Your task to perform on an android device: uninstall "Google News" Image 0: 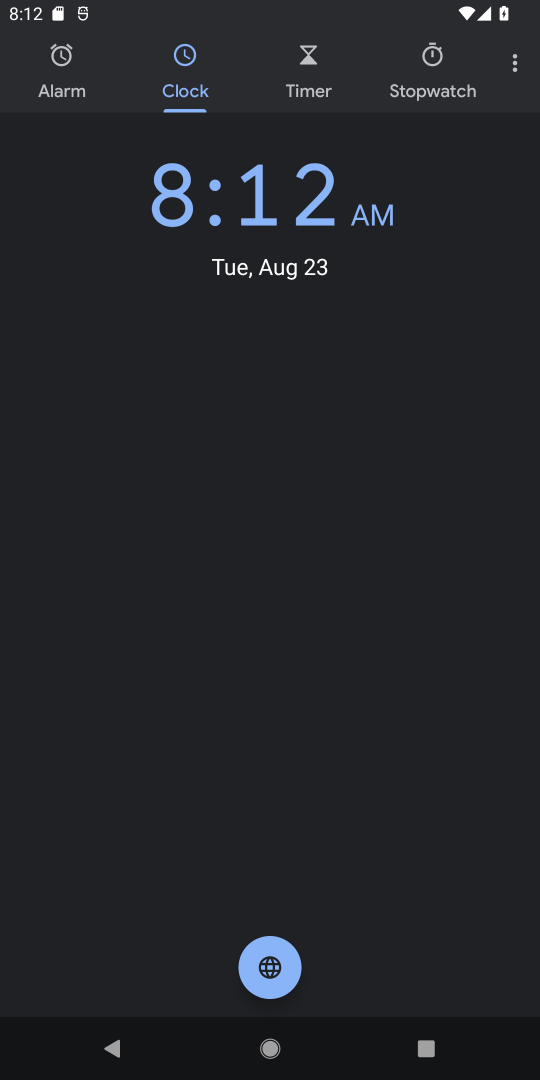
Step 0: press home button
Your task to perform on an android device: uninstall "Google News" Image 1: 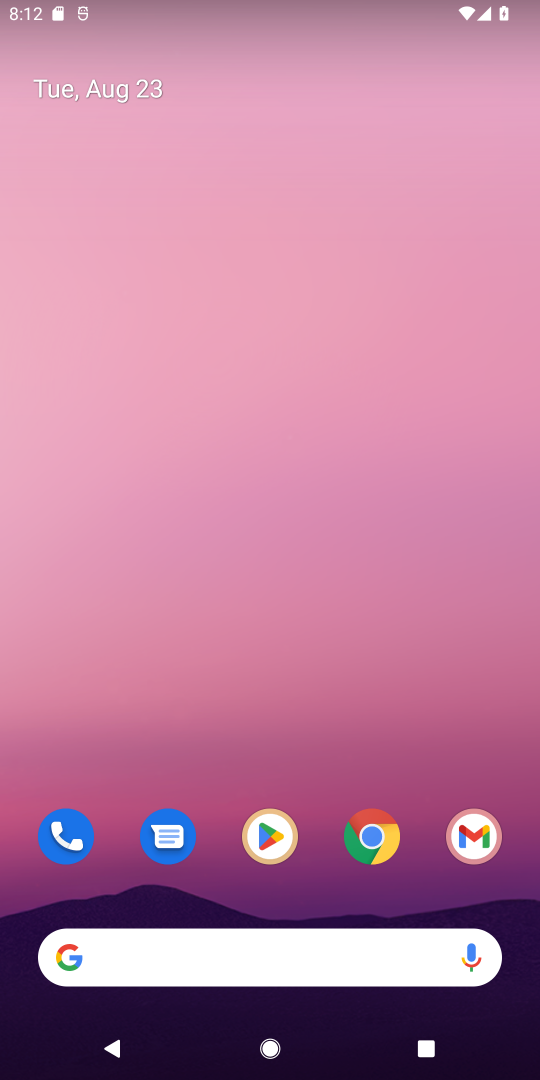
Step 1: click (273, 846)
Your task to perform on an android device: uninstall "Google News" Image 2: 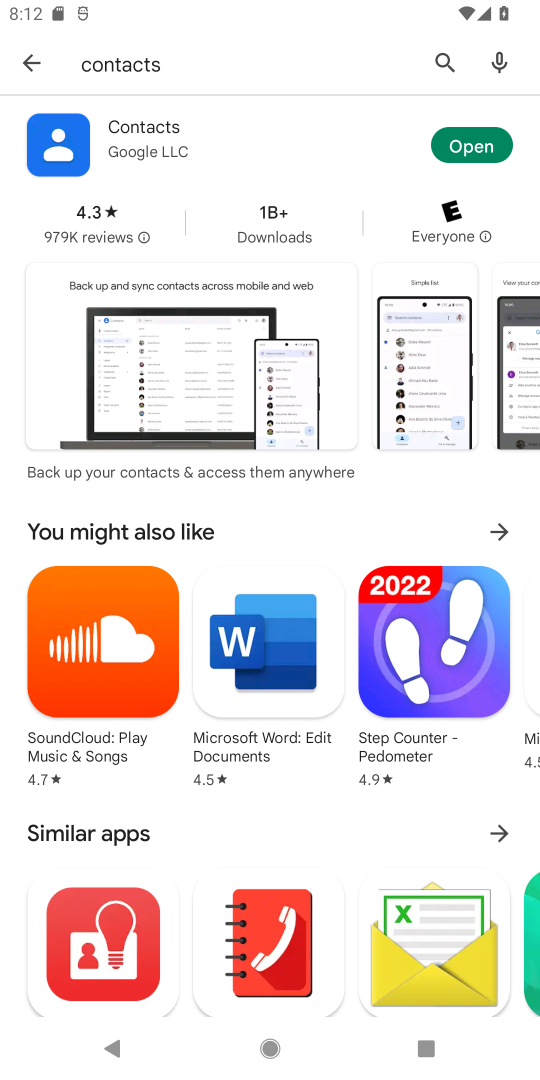
Step 2: click (442, 60)
Your task to perform on an android device: uninstall "Google News" Image 3: 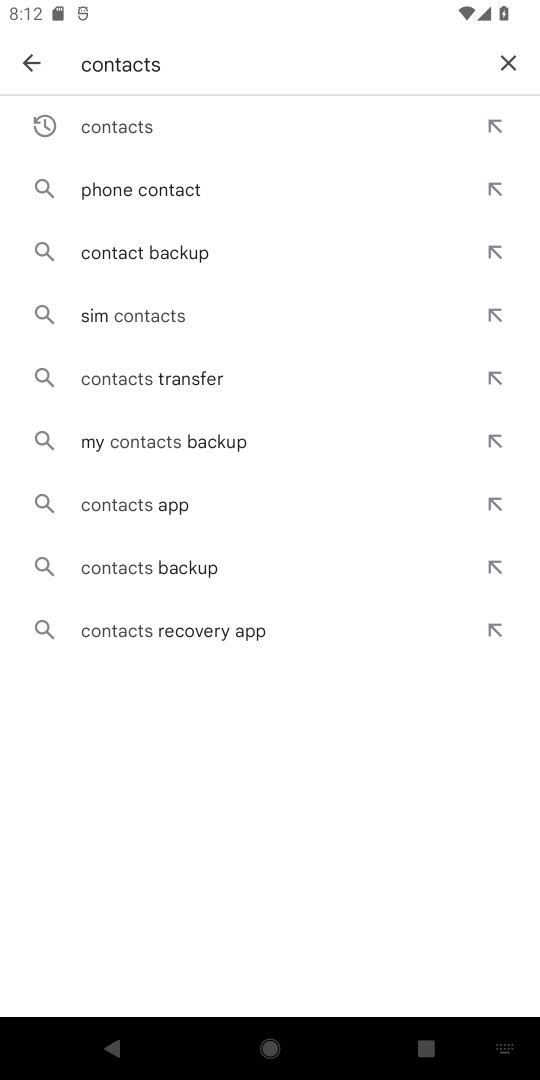
Step 3: click (509, 52)
Your task to perform on an android device: uninstall "Google News" Image 4: 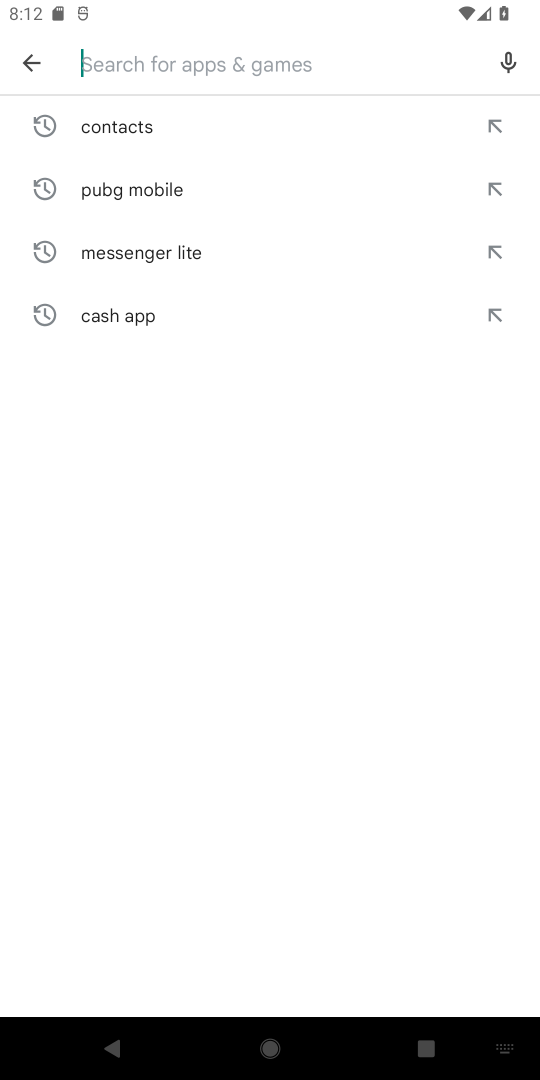
Step 4: type "Google News"
Your task to perform on an android device: uninstall "Google News" Image 5: 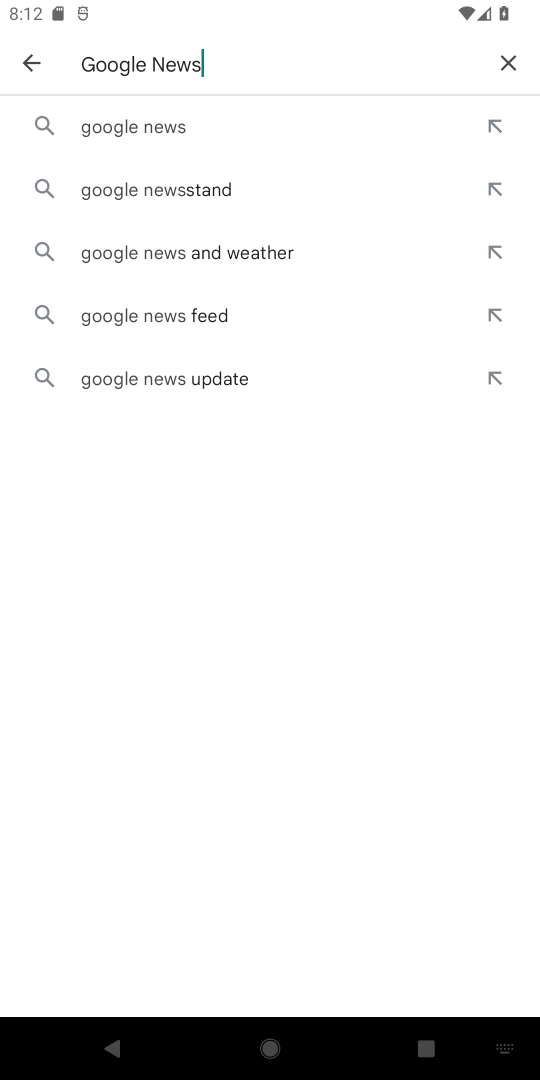
Step 5: click (127, 127)
Your task to perform on an android device: uninstall "Google News" Image 6: 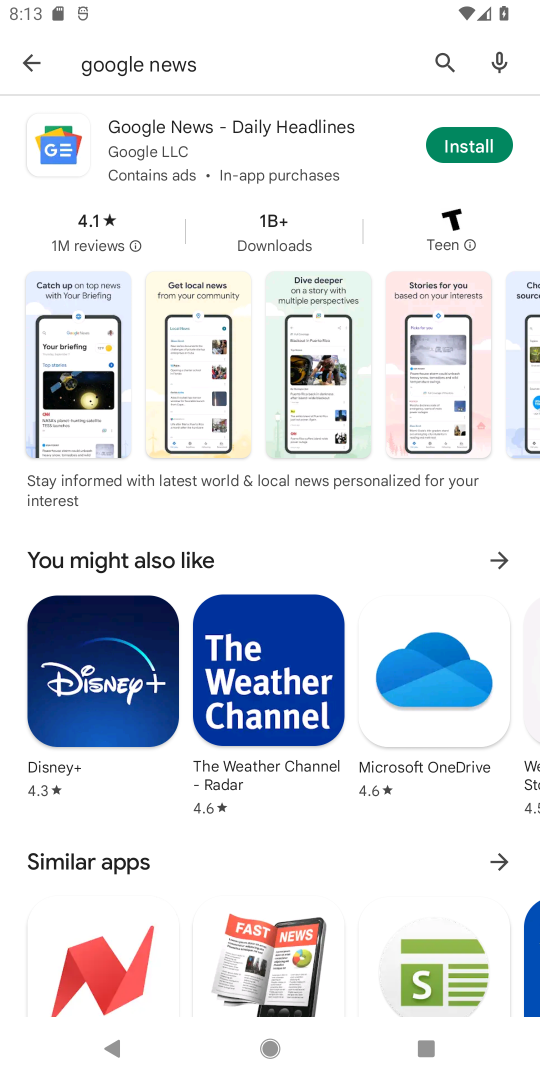
Step 6: task complete